Your task to perform on an android device: Open Google Maps and go to "Timeline" Image 0: 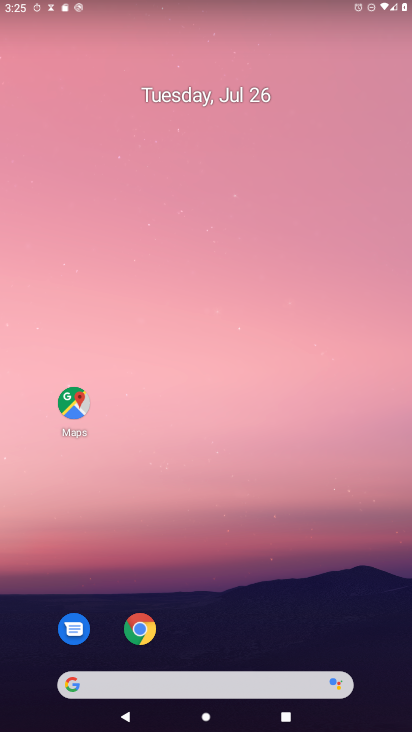
Step 0: drag from (270, 652) to (306, 86)
Your task to perform on an android device: Open Google Maps and go to "Timeline" Image 1: 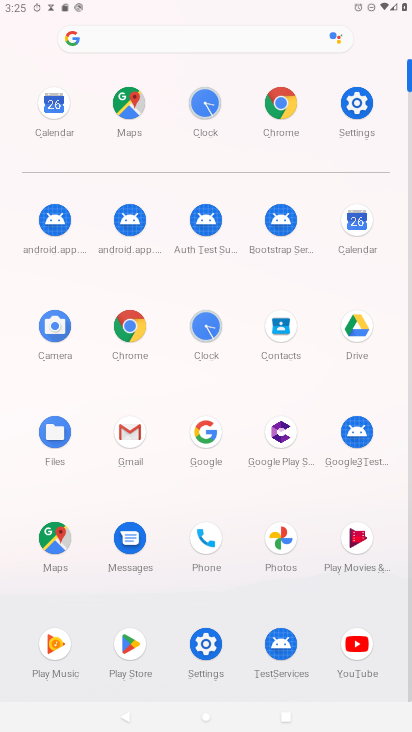
Step 1: click (55, 539)
Your task to perform on an android device: Open Google Maps and go to "Timeline" Image 2: 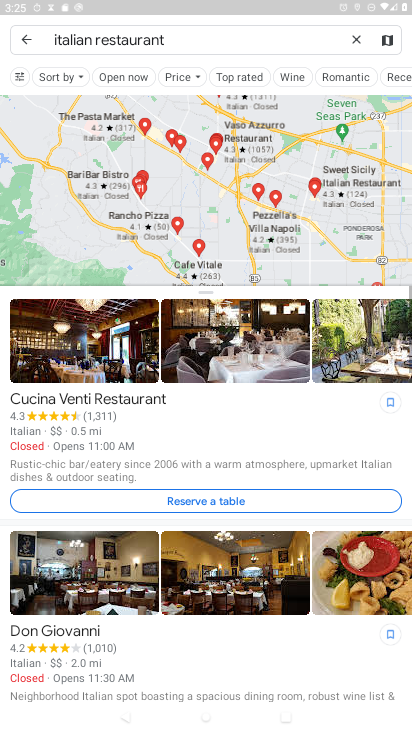
Step 2: press back button
Your task to perform on an android device: Open Google Maps and go to "Timeline" Image 3: 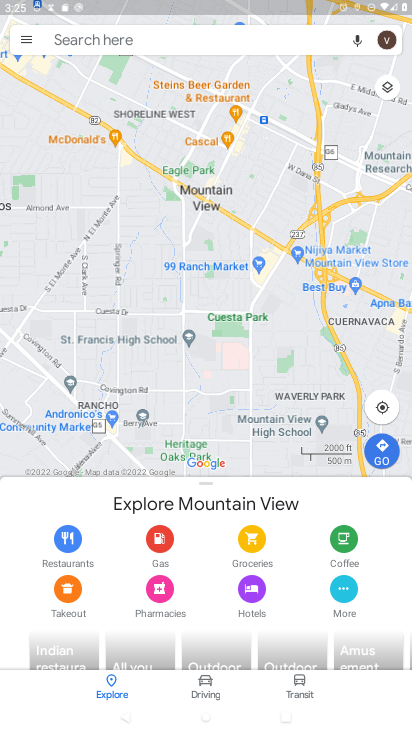
Step 3: click (30, 37)
Your task to perform on an android device: Open Google Maps and go to "Timeline" Image 4: 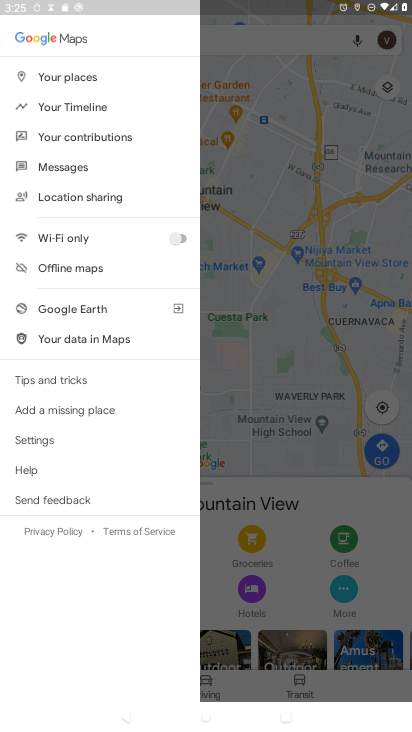
Step 4: click (90, 113)
Your task to perform on an android device: Open Google Maps and go to "Timeline" Image 5: 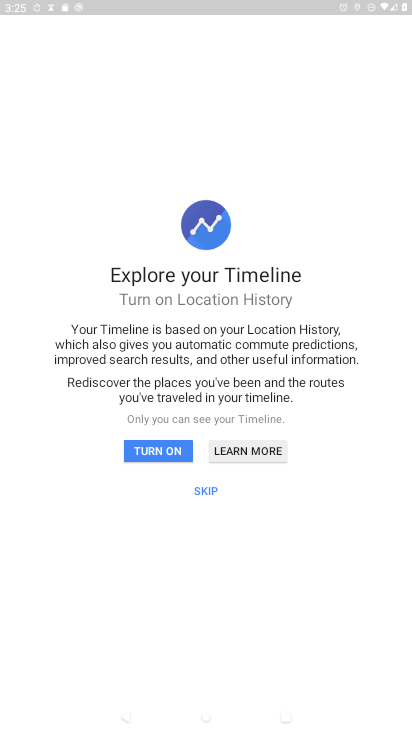
Step 5: click (210, 490)
Your task to perform on an android device: Open Google Maps and go to "Timeline" Image 6: 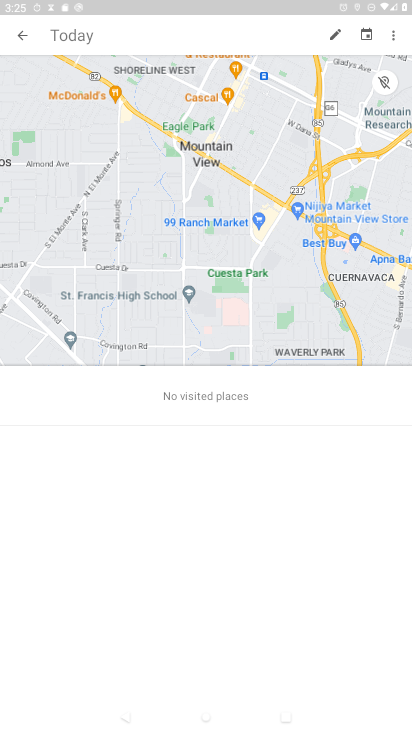
Step 6: task complete